Your task to perform on an android device: Go to settings Image 0: 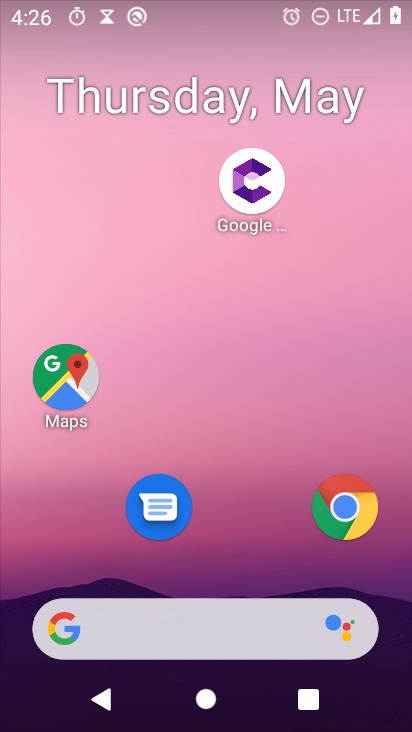
Step 0: drag from (226, 504) to (183, 213)
Your task to perform on an android device: Go to settings Image 1: 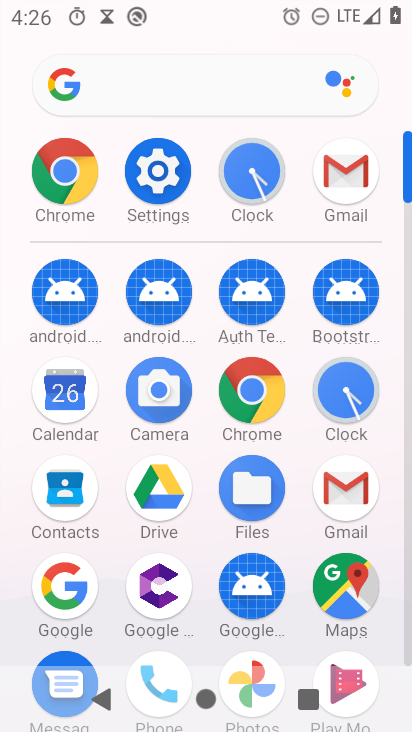
Step 1: click (151, 175)
Your task to perform on an android device: Go to settings Image 2: 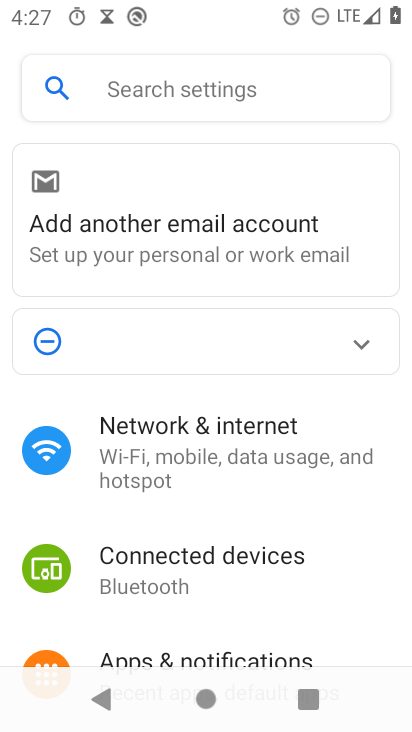
Step 2: task complete